Your task to perform on an android device: Go to accessibility settings Image 0: 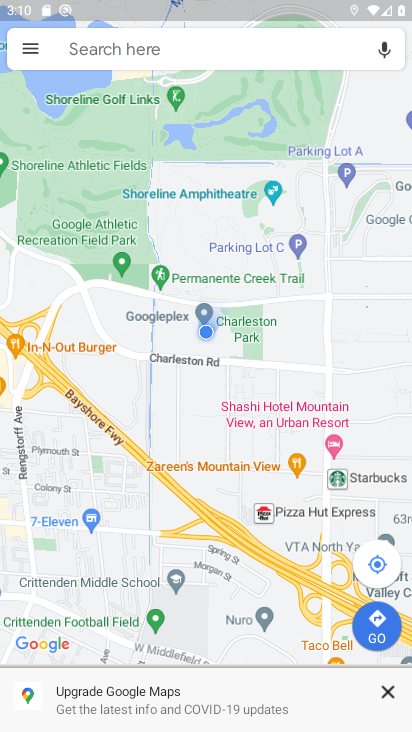
Step 0: press home button
Your task to perform on an android device: Go to accessibility settings Image 1: 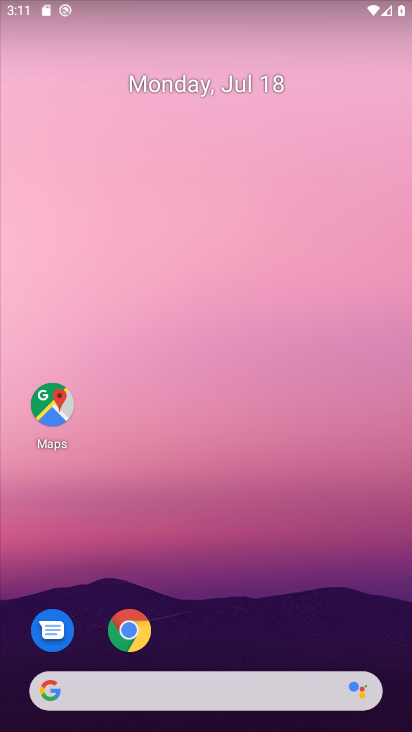
Step 1: drag from (308, 638) to (228, 126)
Your task to perform on an android device: Go to accessibility settings Image 2: 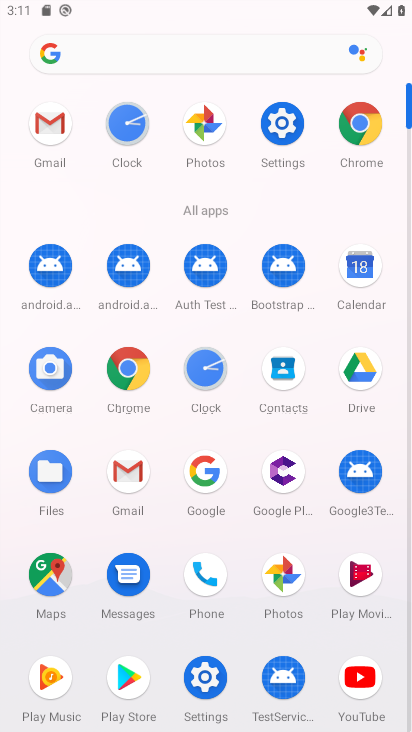
Step 2: click (280, 126)
Your task to perform on an android device: Go to accessibility settings Image 3: 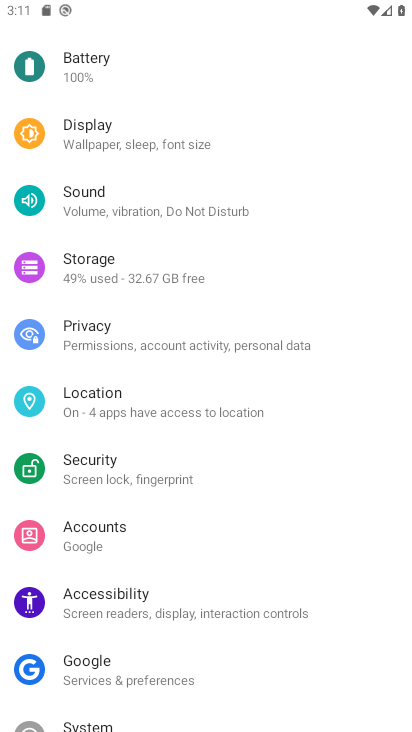
Step 3: click (243, 610)
Your task to perform on an android device: Go to accessibility settings Image 4: 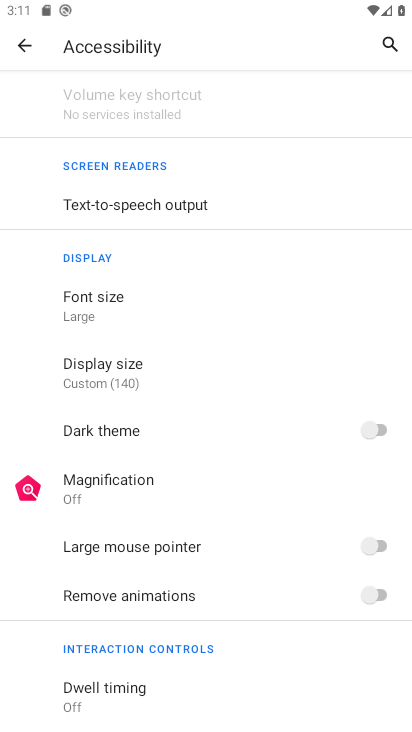
Step 4: task complete